Your task to perform on an android device: change timer sound Image 0: 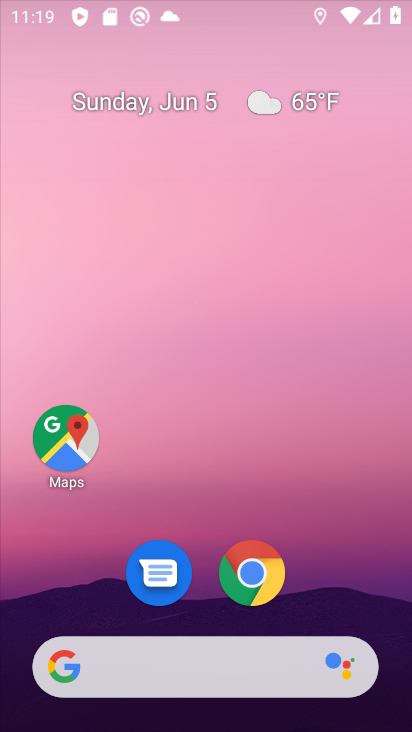
Step 0: press home button
Your task to perform on an android device: change timer sound Image 1: 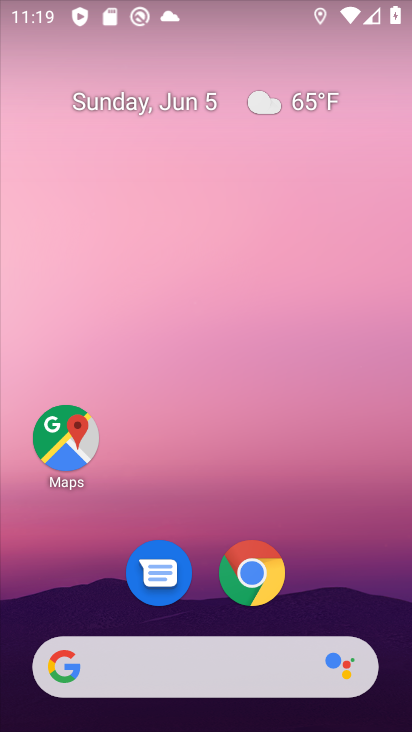
Step 1: drag from (211, 608) to (223, 68)
Your task to perform on an android device: change timer sound Image 2: 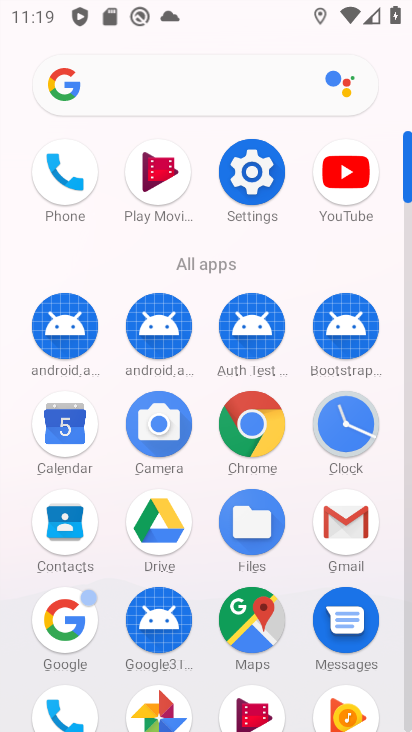
Step 2: click (345, 416)
Your task to perform on an android device: change timer sound Image 3: 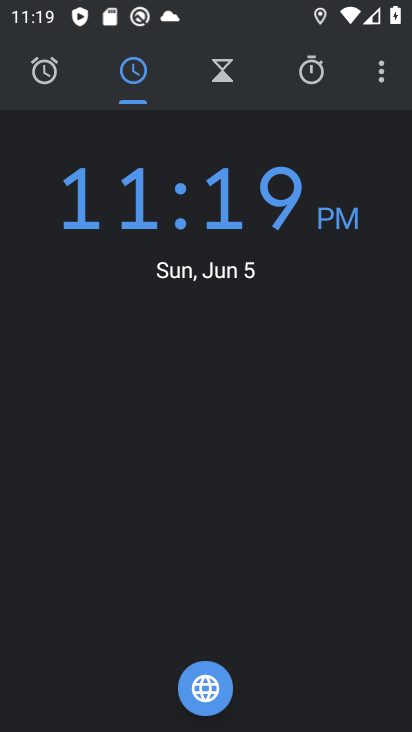
Step 3: click (383, 65)
Your task to perform on an android device: change timer sound Image 4: 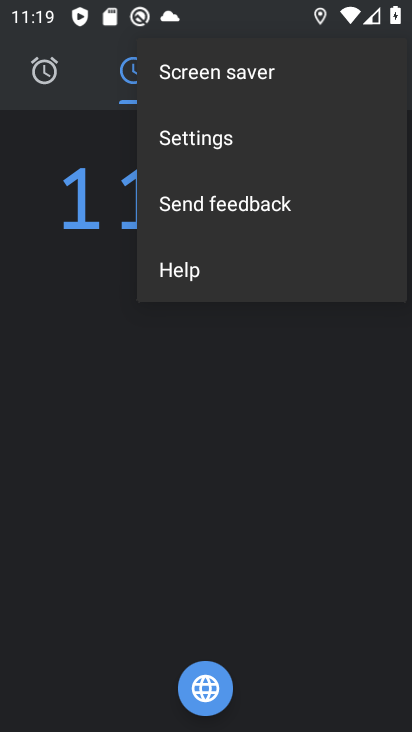
Step 4: click (250, 136)
Your task to perform on an android device: change timer sound Image 5: 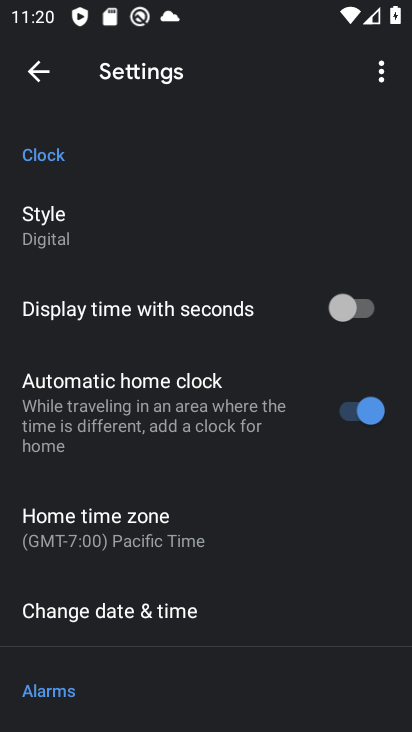
Step 5: drag from (224, 683) to (229, 87)
Your task to perform on an android device: change timer sound Image 6: 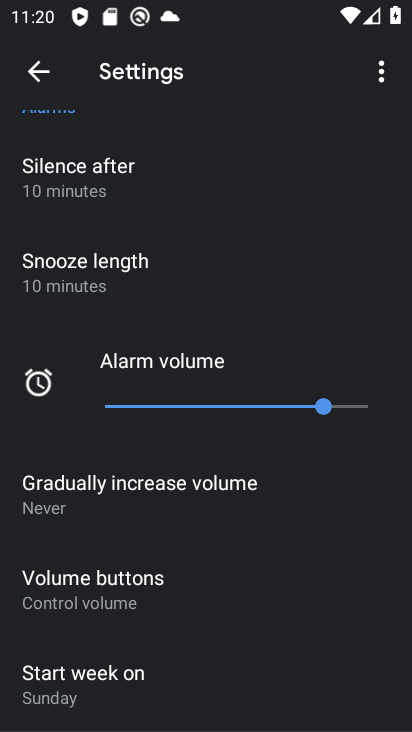
Step 6: drag from (205, 683) to (190, 146)
Your task to perform on an android device: change timer sound Image 7: 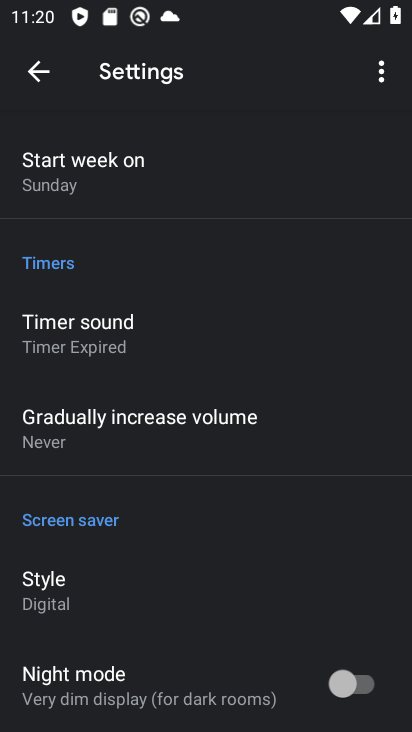
Step 7: click (166, 333)
Your task to perform on an android device: change timer sound Image 8: 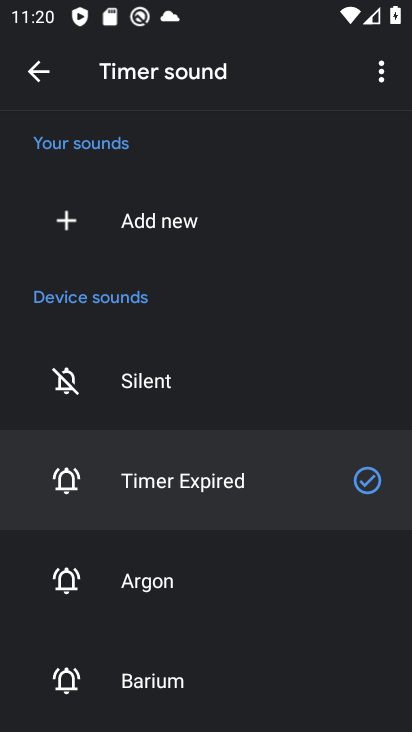
Step 8: click (243, 674)
Your task to perform on an android device: change timer sound Image 9: 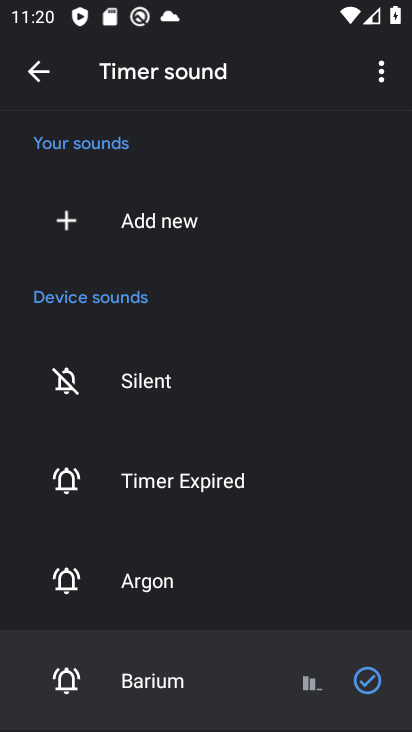
Step 9: task complete